Your task to perform on an android device: Search for Mexican restaurants on Maps Image 0: 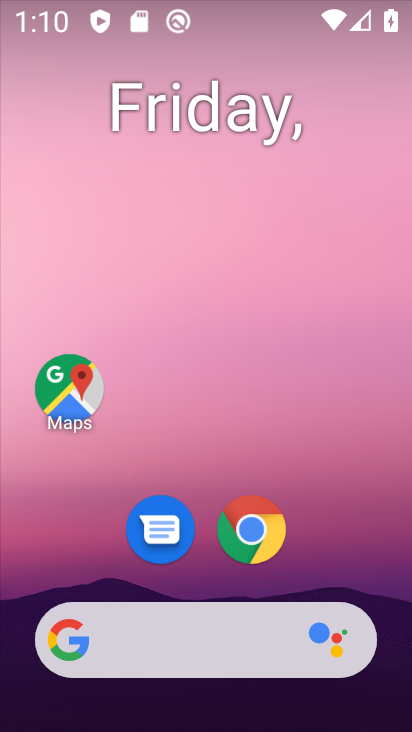
Step 0: drag from (323, 529) to (326, 152)
Your task to perform on an android device: Search for Mexican restaurants on Maps Image 1: 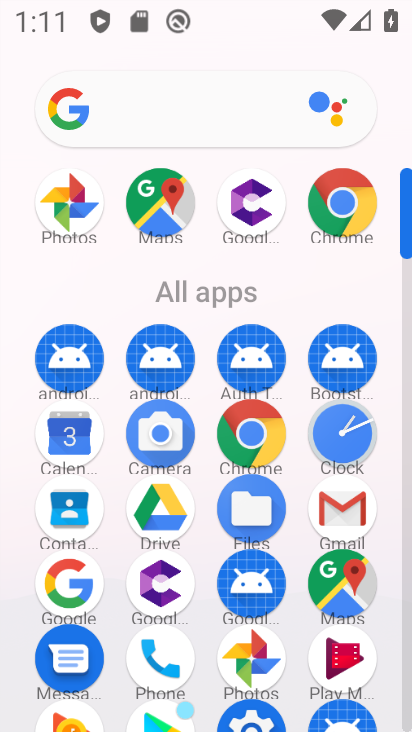
Step 1: click (347, 593)
Your task to perform on an android device: Search for Mexican restaurants on Maps Image 2: 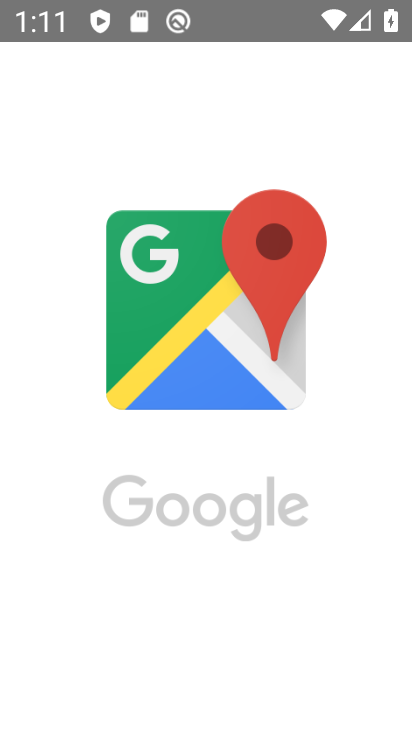
Step 2: task complete